Your task to perform on an android device: Go to settings Image 0: 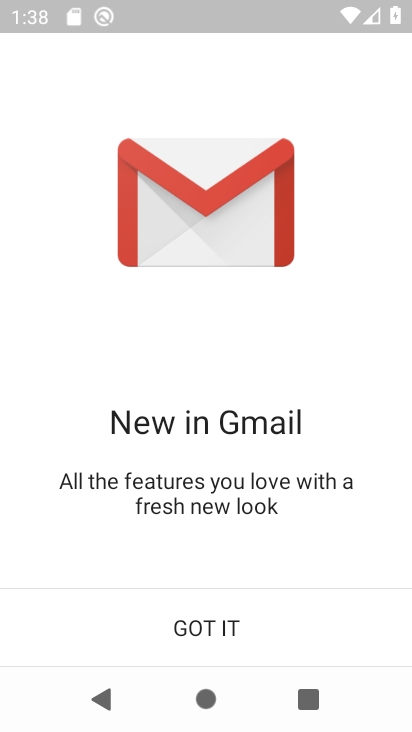
Step 0: press home button
Your task to perform on an android device: Go to settings Image 1: 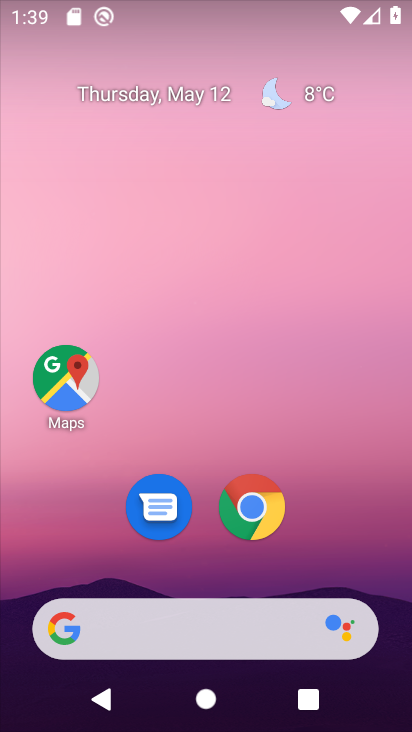
Step 1: drag from (161, 582) to (276, 40)
Your task to perform on an android device: Go to settings Image 2: 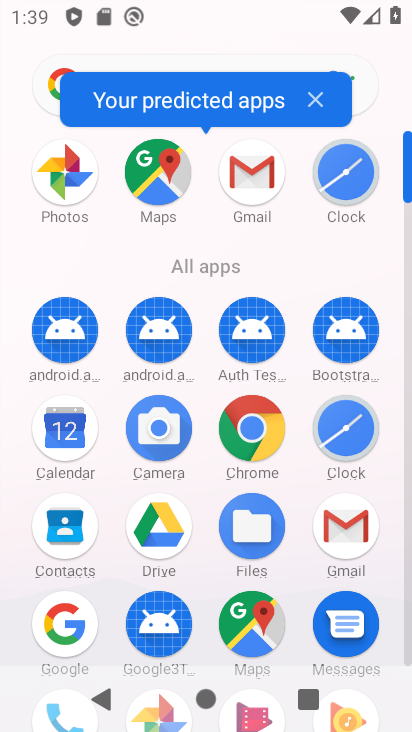
Step 2: drag from (222, 609) to (268, 335)
Your task to perform on an android device: Go to settings Image 3: 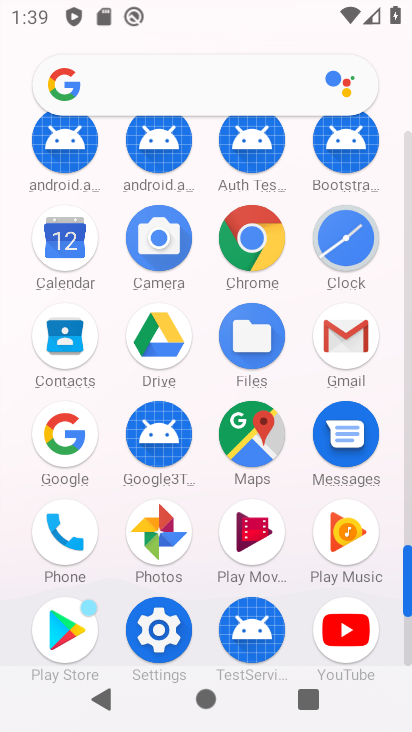
Step 3: click (161, 640)
Your task to perform on an android device: Go to settings Image 4: 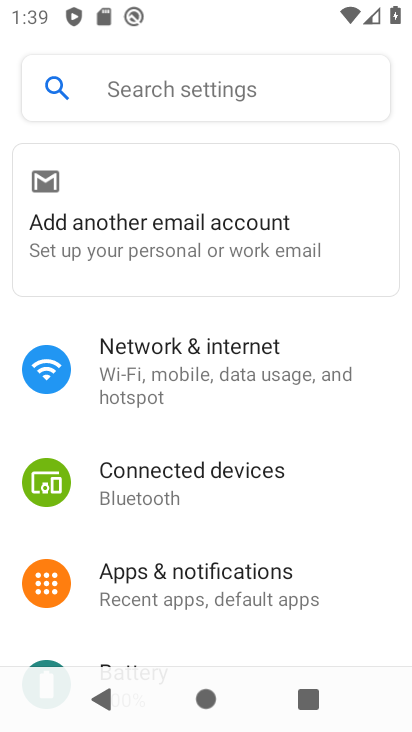
Step 4: task complete